Your task to perform on an android device: Open the calendar and show me this week's events? Image 0: 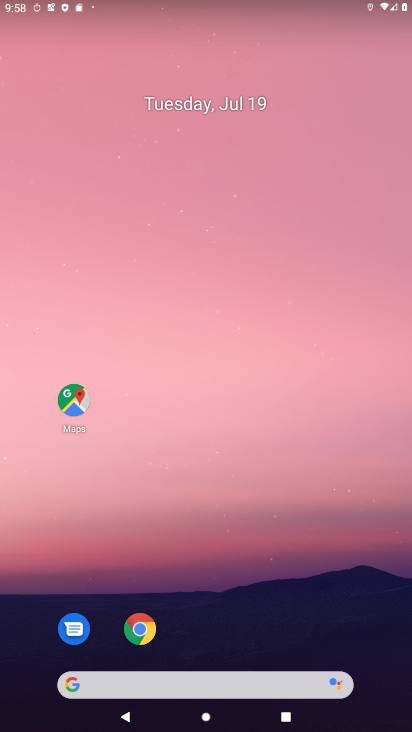
Step 0: drag from (251, 625) to (230, 17)
Your task to perform on an android device: Open the calendar and show me this week's events? Image 1: 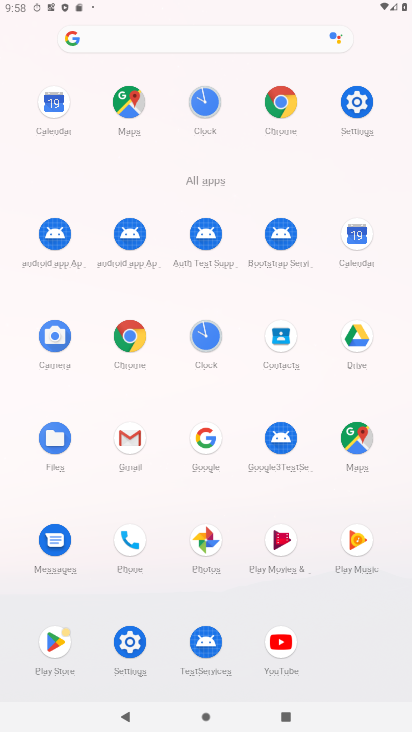
Step 1: click (363, 248)
Your task to perform on an android device: Open the calendar and show me this week's events? Image 2: 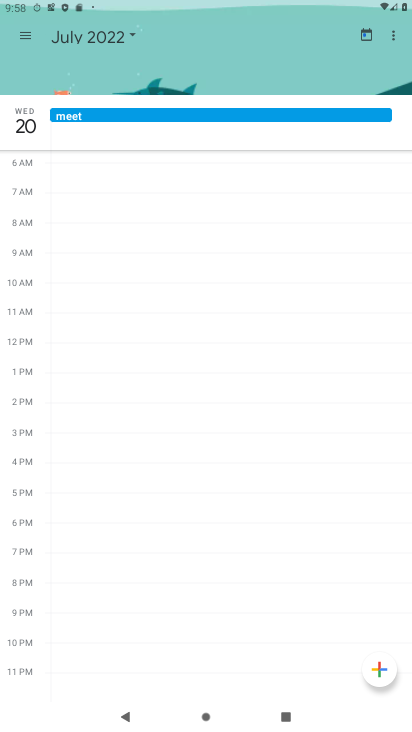
Step 2: click (24, 36)
Your task to perform on an android device: Open the calendar and show me this week's events? Image 3: 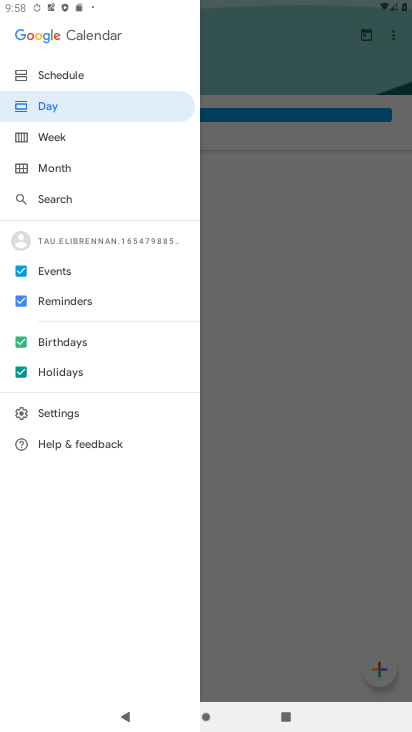
Step 3: click (59, 381)
Your task to perform on an android device: Open the calendar and show me this week's events? Image 4: 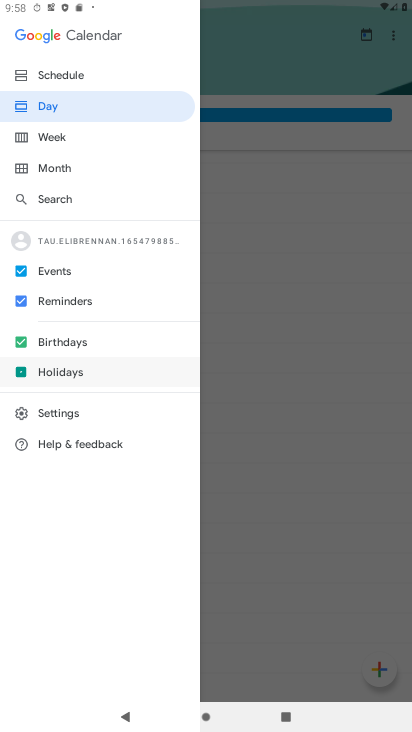
Step 4: click (63, 335)
Your task to perform on an android device: Open the calendar and show me this week's events? Image 5: 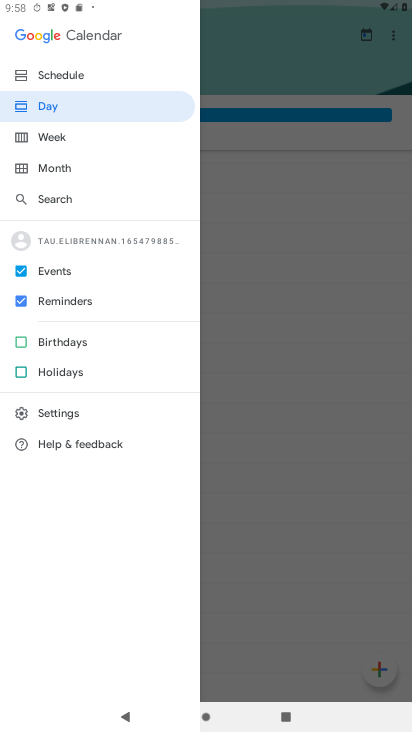
Step 5: click (68, 305)
Your task to perform on an android device: Open the calendar and show me this week's events? Image 6: 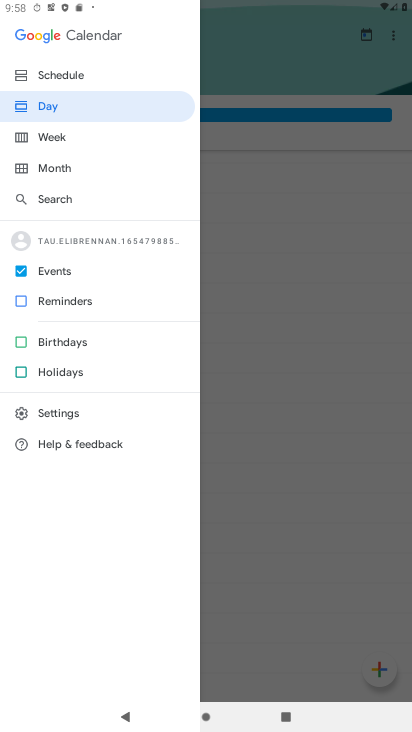
Step 6: click (62, 137)
Your task to perform on an android device: Open the calendar and show me this week's events? Image 7: 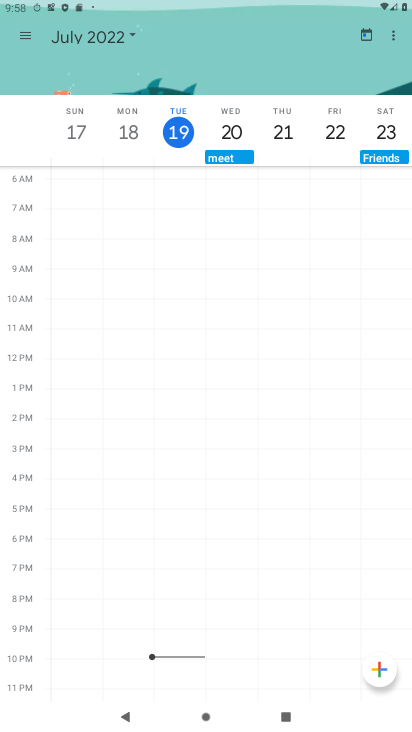
Step 7: click (31, 45)
Your task to perform on an android device: Open the calendar and show me this week's events? Image 8: 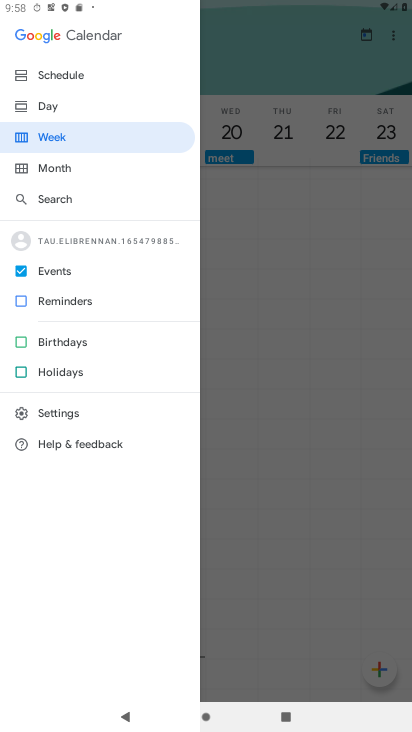
Step 8: task complete